Your task to perform on an android device: check storage Image 0: 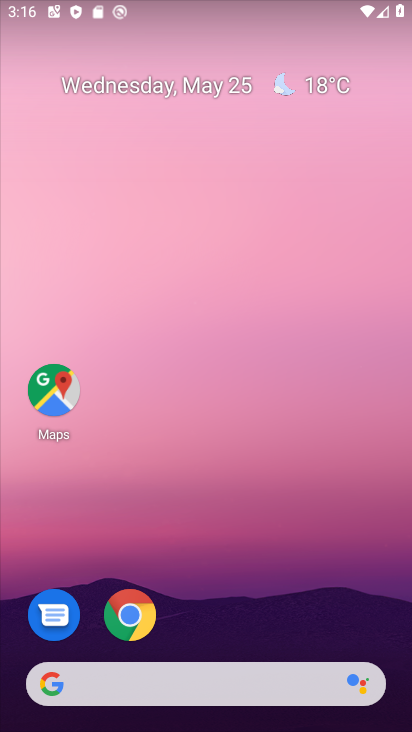
Step 0: drag from (293, 646) to (294, 5)
Your task to perform on an android device: check storage Image 1: 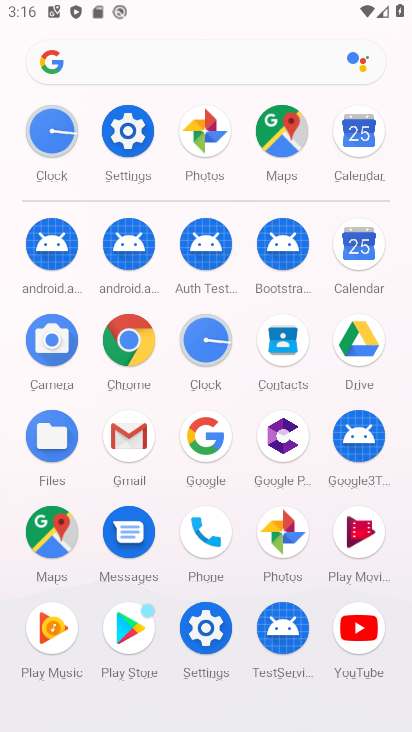
Step 1: click (186, 617)
Your task to perform on an android device: check storage Image 2: 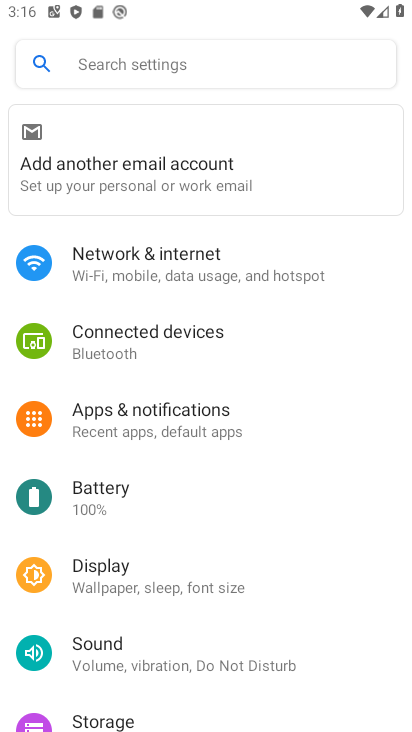
Step 2: drag from (171, 674) to (206, 175)
Your task to perform on an android device: check storage Image 3: 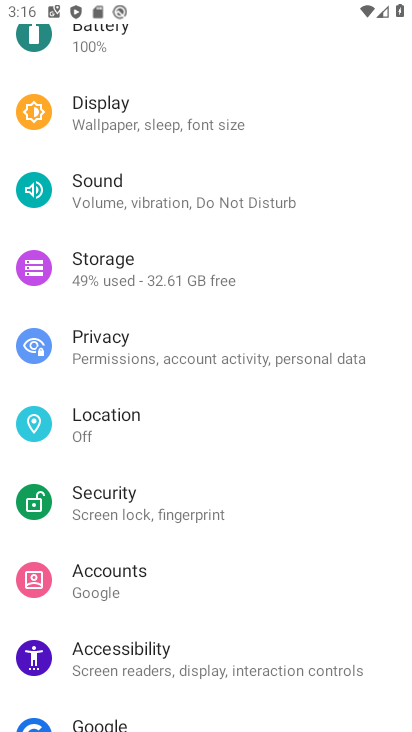
Step 3: click (125, 268)
Your task to perform on an android device: check storage Image 4: 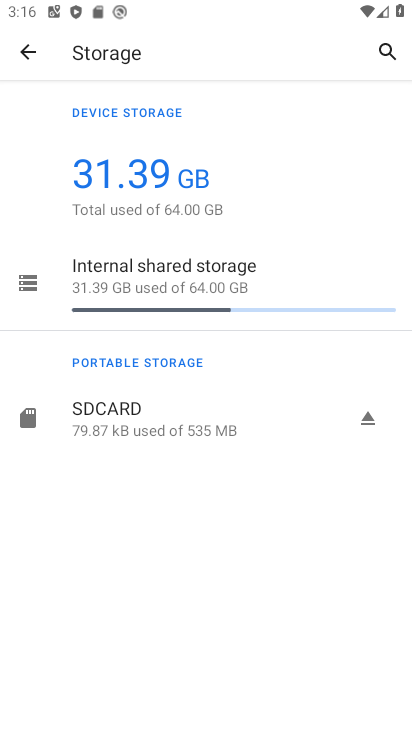
Step 4: task complete